Your task to perform on an android device: change your default location settings in chrome Image 0: 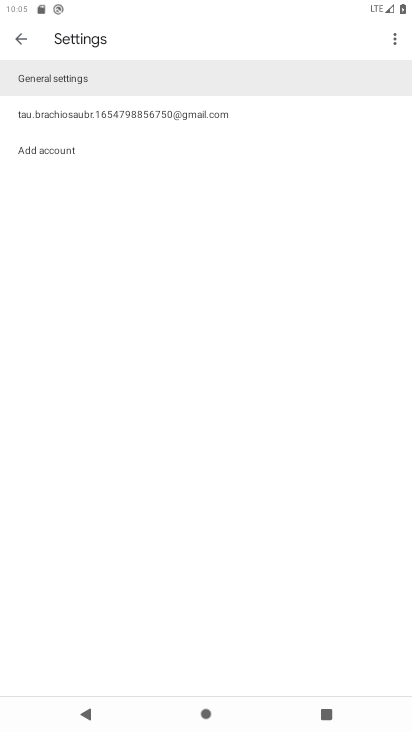
Step 0: press home button
Your task to perform on an android device: change your default location settings in chrome Image 1: 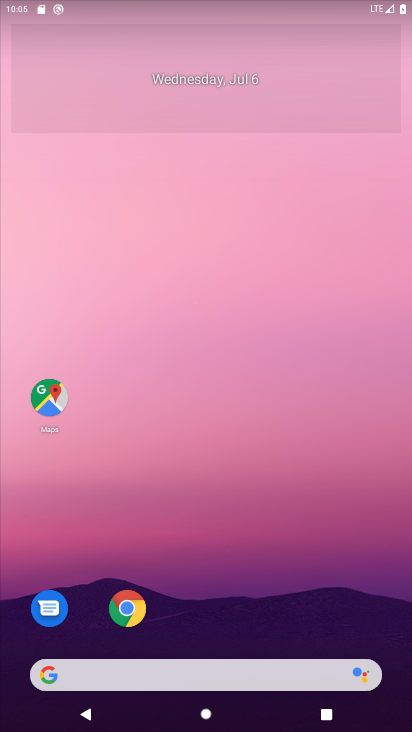
Step 1: drag from (274, 562) to (290, 24)
Your task to perform on an android device: change your default location settings in chrome Image 2: 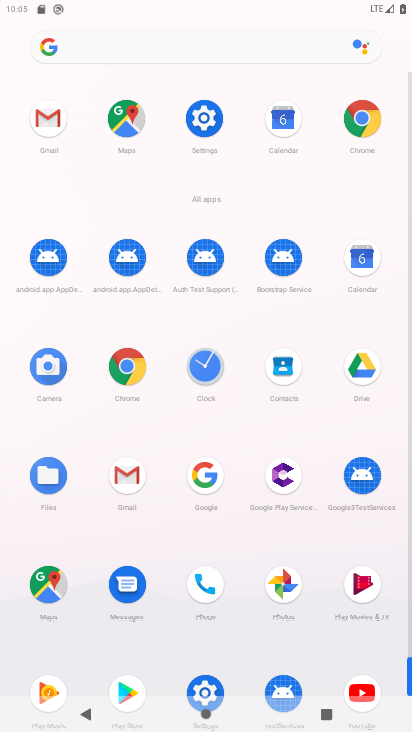
Step 2: click (121, 365)
Your task to perform on an android device: change your default location settings in chrome Image 3: 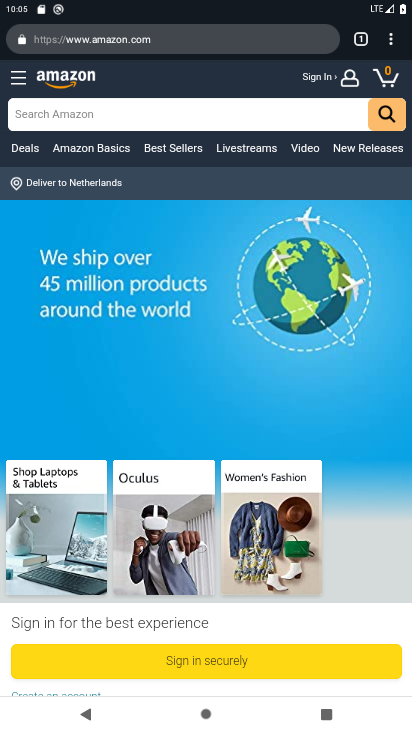
Step 3: click (396, 33)
Your task to perform on an android device: change your default location settings in chrome Image 4: 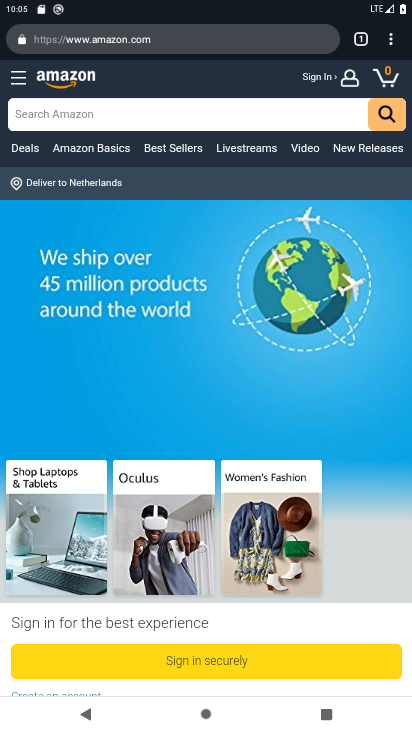
Step 4: click (394, 46)
Your task to perform on an android device: change your default location settings in chrome Image 5: 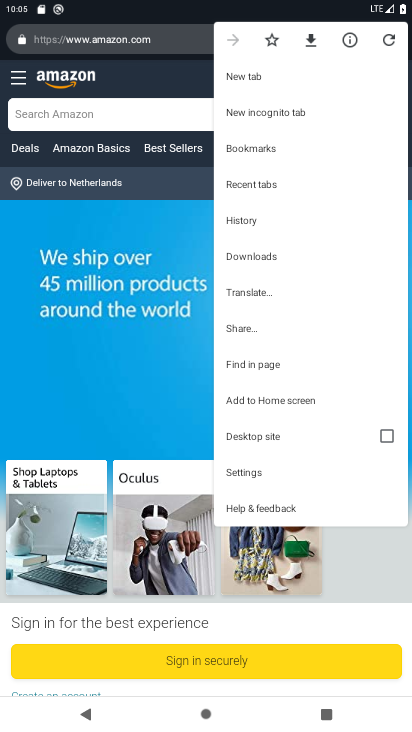
Step 5: click (261, 473)
Your task to perform on an android device: change your default location settings in chrome Image 6: 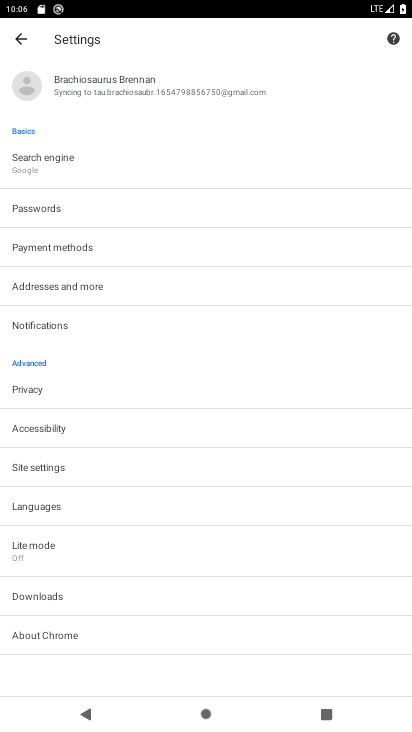
Step 6: drag from (100, 464) to (128, 249)
Your task to perform on an android device: change your default location settings in chrome Image 7: 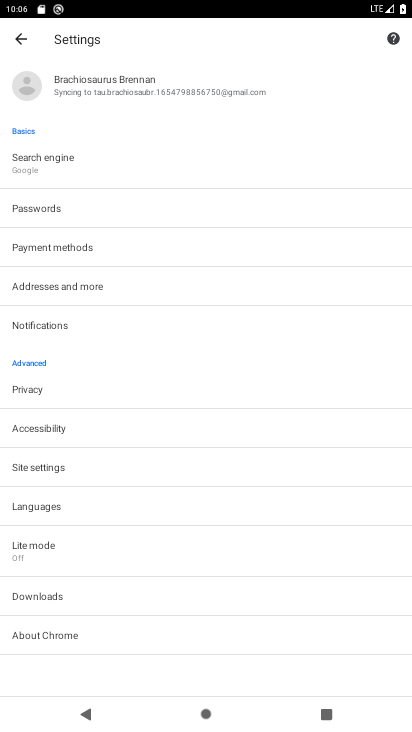
Step 7: click (55, 463)
Your task to perform on an android device: change your default location settings in chrome Image 8: 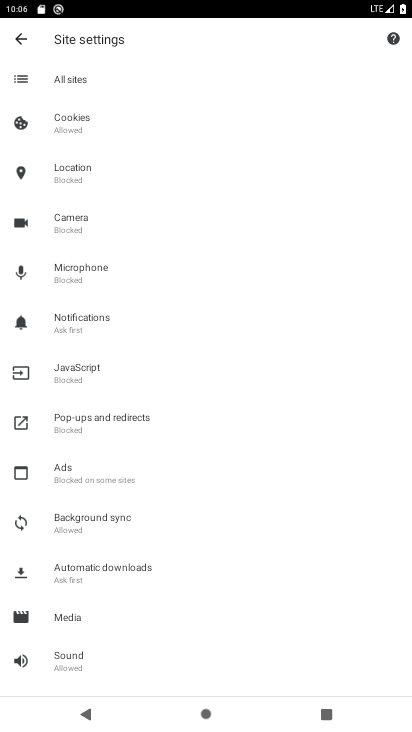
Step 8: click (113, 166)
Your task to perform on an android device: change your default location settings in chrome Image 9: 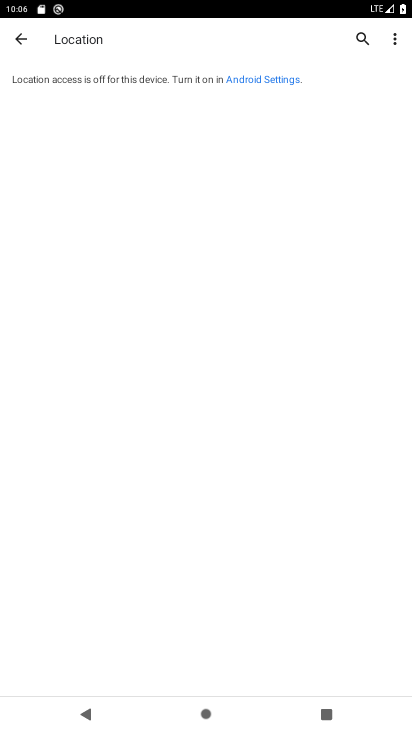
Step 9: click (275, 79)
Your task to perform on an android device: change your default location settings in chrome Image 10: 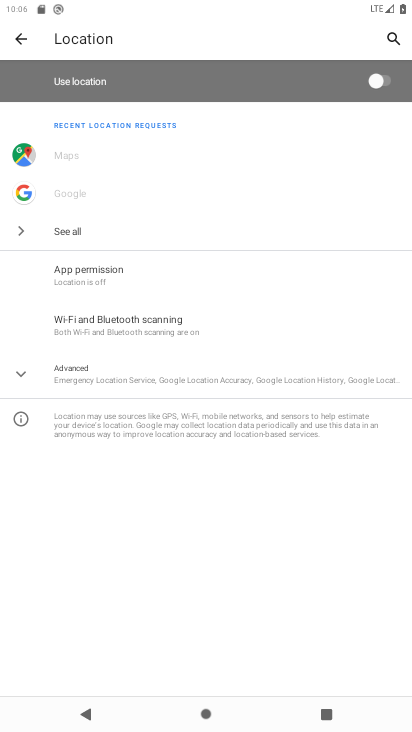
Step 10: click (353, 85)
Your task to perform on an android device: change your default location settings in chrome Image 11: 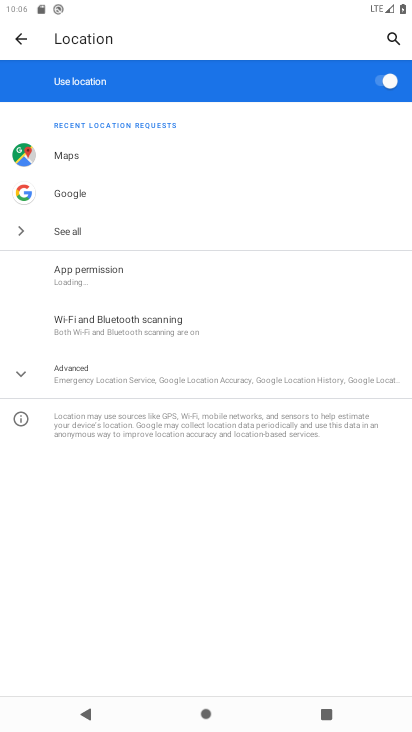
Step 11: task complete